Your task to perform on an android device: Open calendar and show me the third week of next month Image 0: 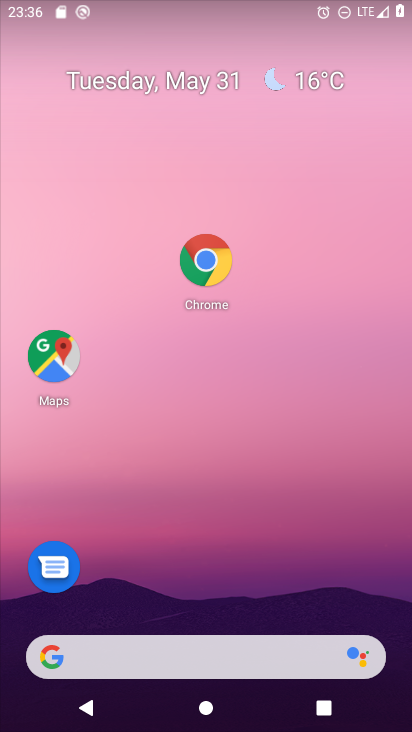
Step 0: drag from (175, 631) to (203, 250)
Your task to perform on an android device: Open calendar and show me the third week of next month Image 1: 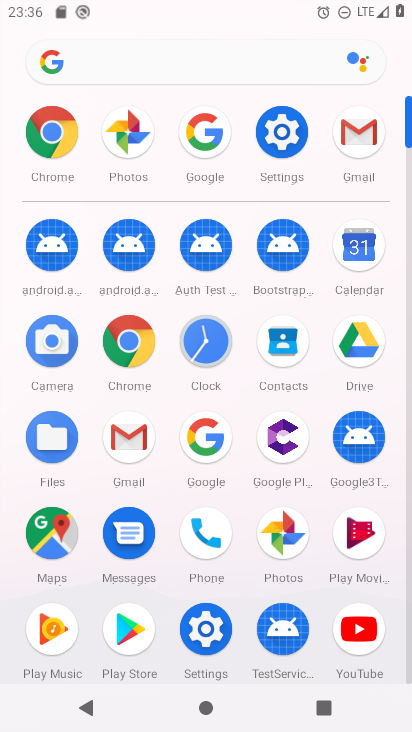
Step 1: click (368, 245)
Your task to perform on an android device: Open calendar and show me the third week of next month Image 2: 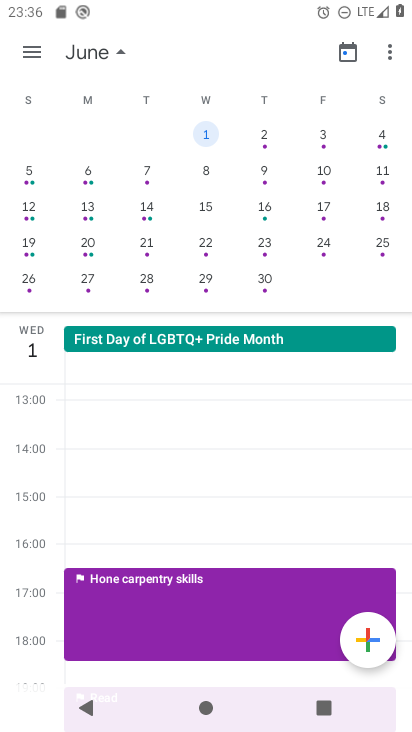
Step 2: drag from (385, 250) to (7, 257)
Your task to perform on an android device: Open calendar and show me the third week of next month Image 3: 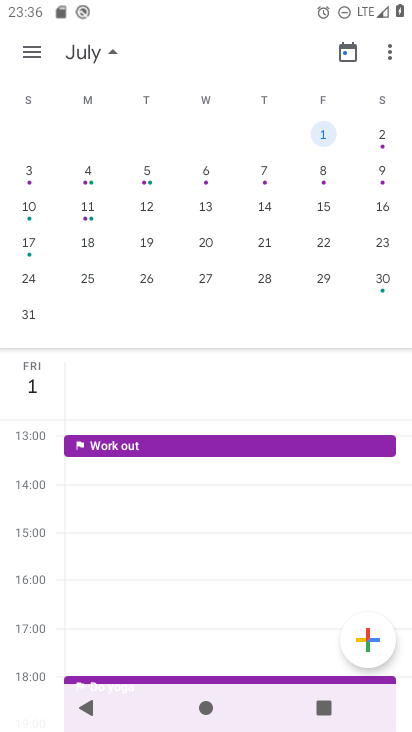
Step 3: drag from (393, 265) to (44, 227)
Your task to perform on an android device: Open calendar and show me the third week of next month Image 4: 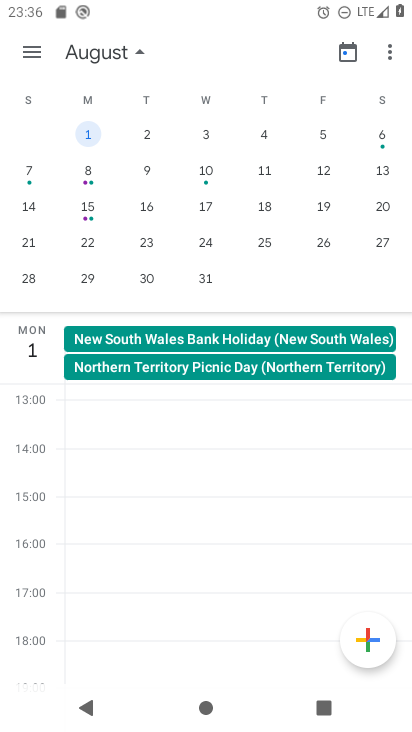
Step 4: drag from (47, 201) to (382, 209)
Your task to perform on an android device: Open calendar and show me the third week of next month Image 5: 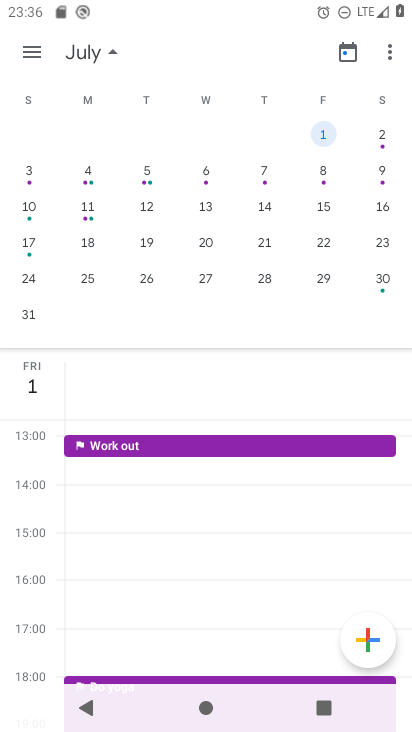
Step 5: click (26, 211)
Your task to perform on an android device: Open calendar and show me the third week of next month Image 6: 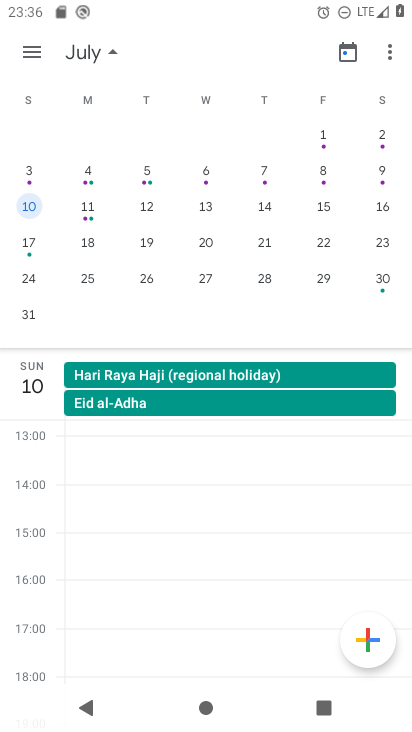
Step 6: task complete